Your task to perform on an android device: Open accessibility settings Image 0: 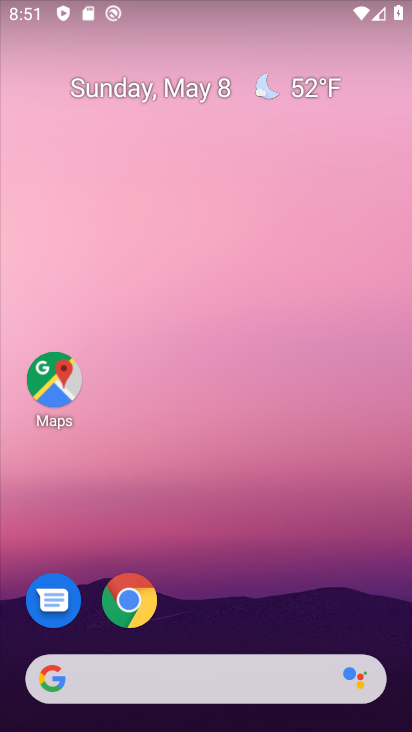
Step 0: drag from (241, 612) to (260, 133)
Your task to perform on an android device: Open accessibility settings Image 1: 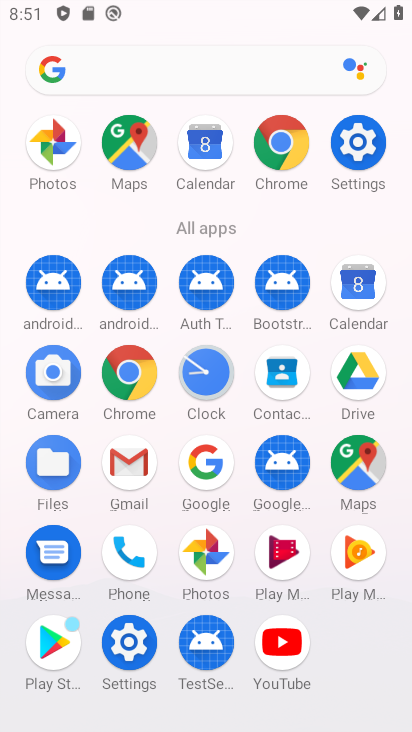
Step 1: click (350, 151)
Your task to perform on an android device: Open accessibility settings Image 2: 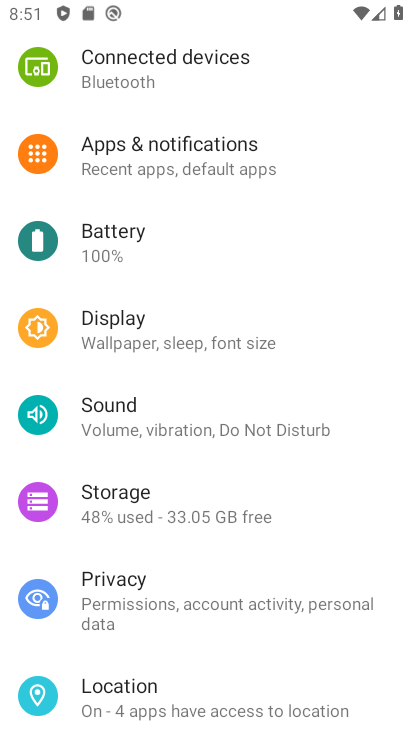
Step 2: drag from (264, 635) to (285, 234)
Your task to perform on an android device: Open accessibility settings Image 3: 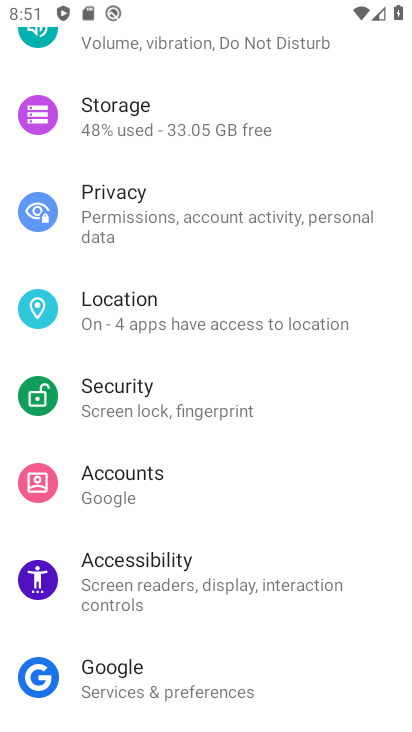
Step 3: click (195, 580)
Your task to perform on an android device: Open accessibility settings Image 4: 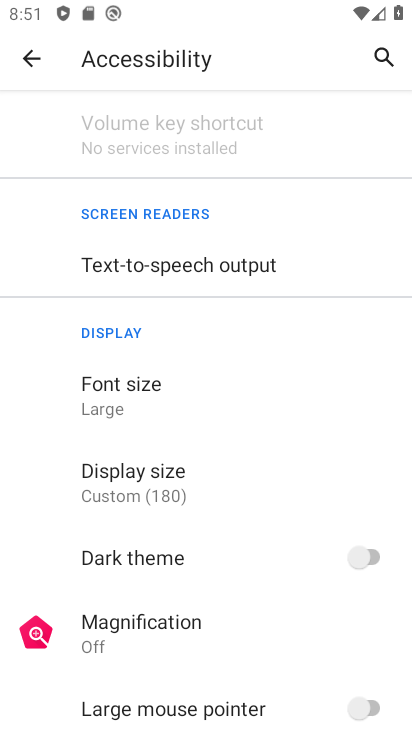
Step 4: task complete